Your task to perform on an android device: turn on the 12-hour format for clock Image 0: 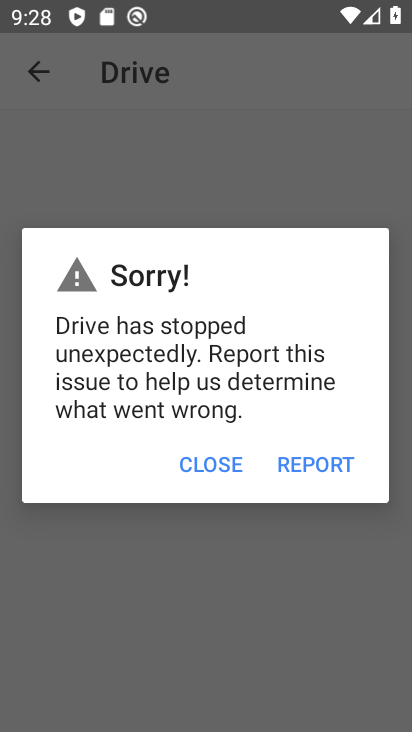
Step 0: press home button
Your task to perform on an android device: turn on the 12-hour format for clock Image 1: 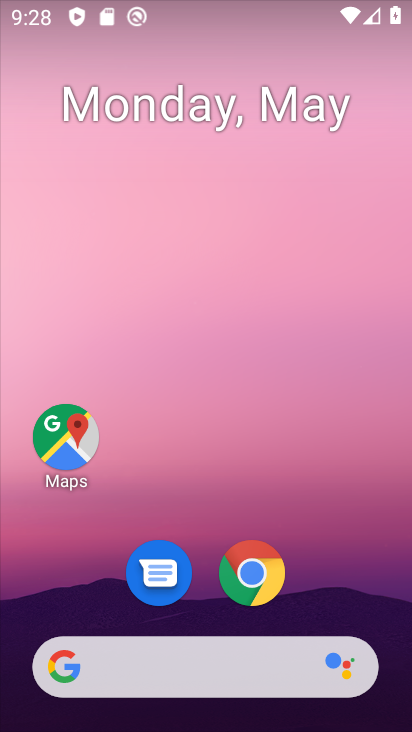
Step 1: drag from (333, 482) to (346, 54)
Your task to perform on an android device: turn on the 12-hour format for clock Image 2: 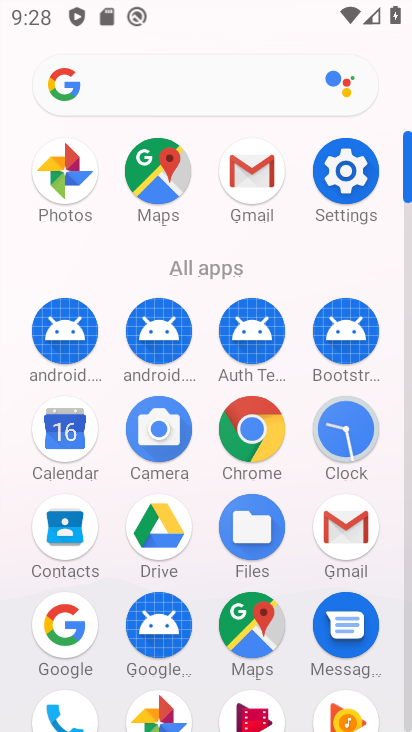
Step 2: click (327, 430)
Your task to perform on an android device: turn on the 12-hour format for clock Image 3: 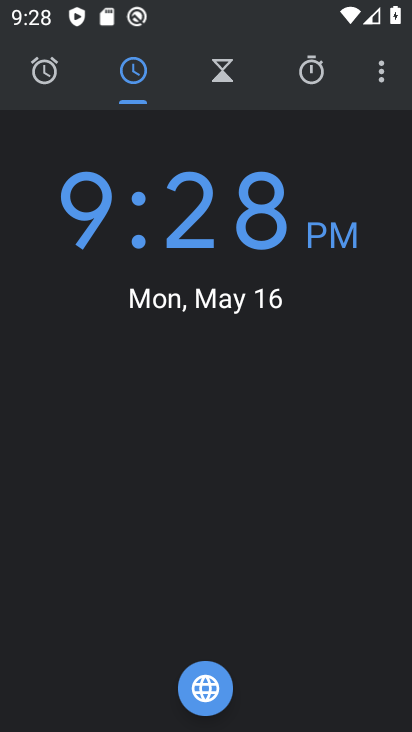
Step 3: click (387, 77)
Your task to perform on an android device: turn on the 12-hour format for clock Image 4: 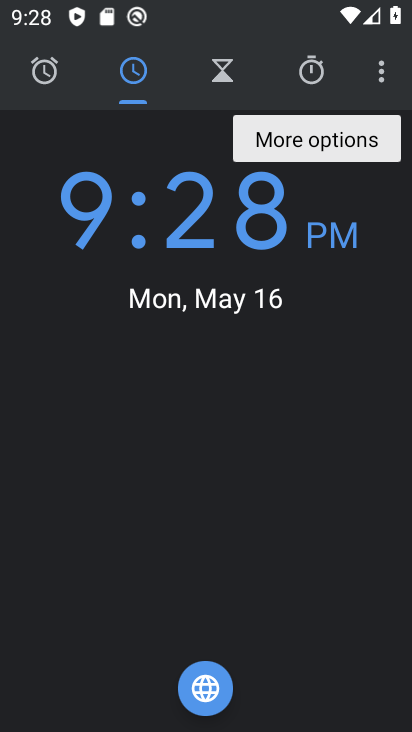
Step 4: click (387, 77)
Your task to perform on an android device: turn on the 12-hour format for clock Image 5: 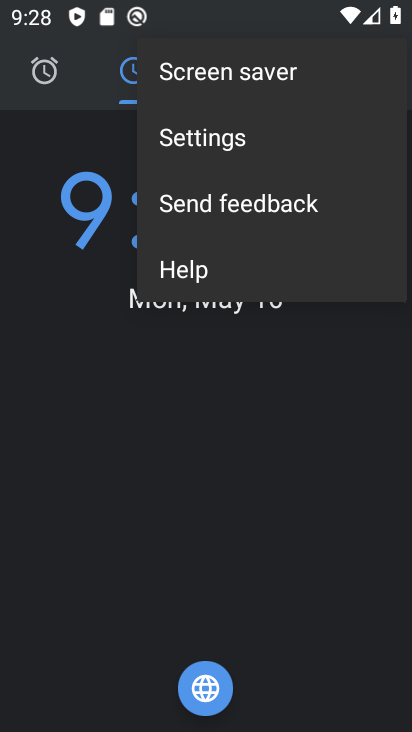
Step 5: click (174, 150)
Your task to perform on an android device: turn on the 12-hour format for clock Image 6: 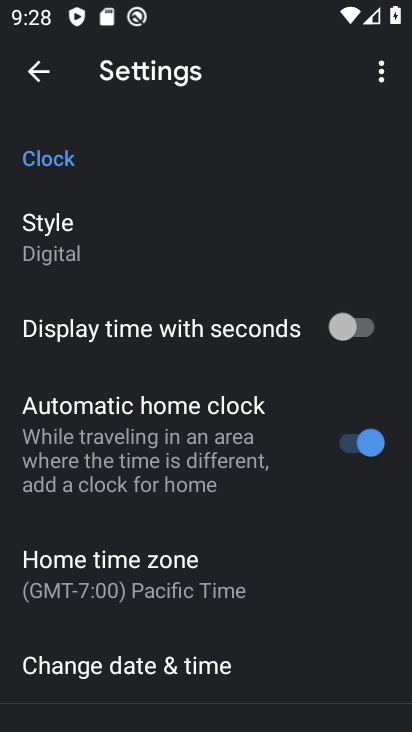
Step 6: click (225, 658)
Your task to perform on an android device: turn on the 12-hour format for clock Image 7: 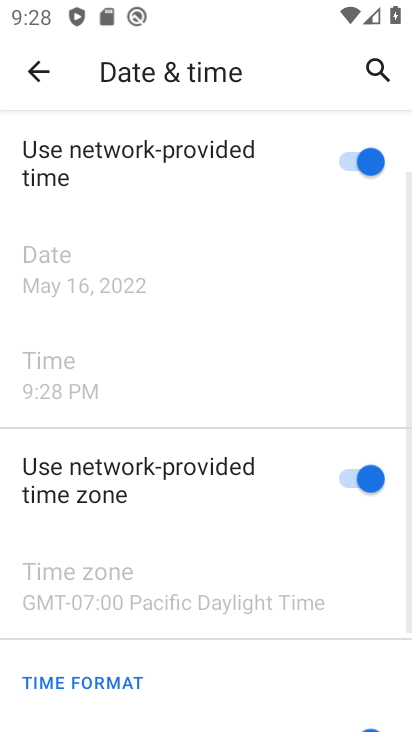
Step 7: task complete